Your task to perform on an android device: Clear the cart on bestbuy.com. Image 0: 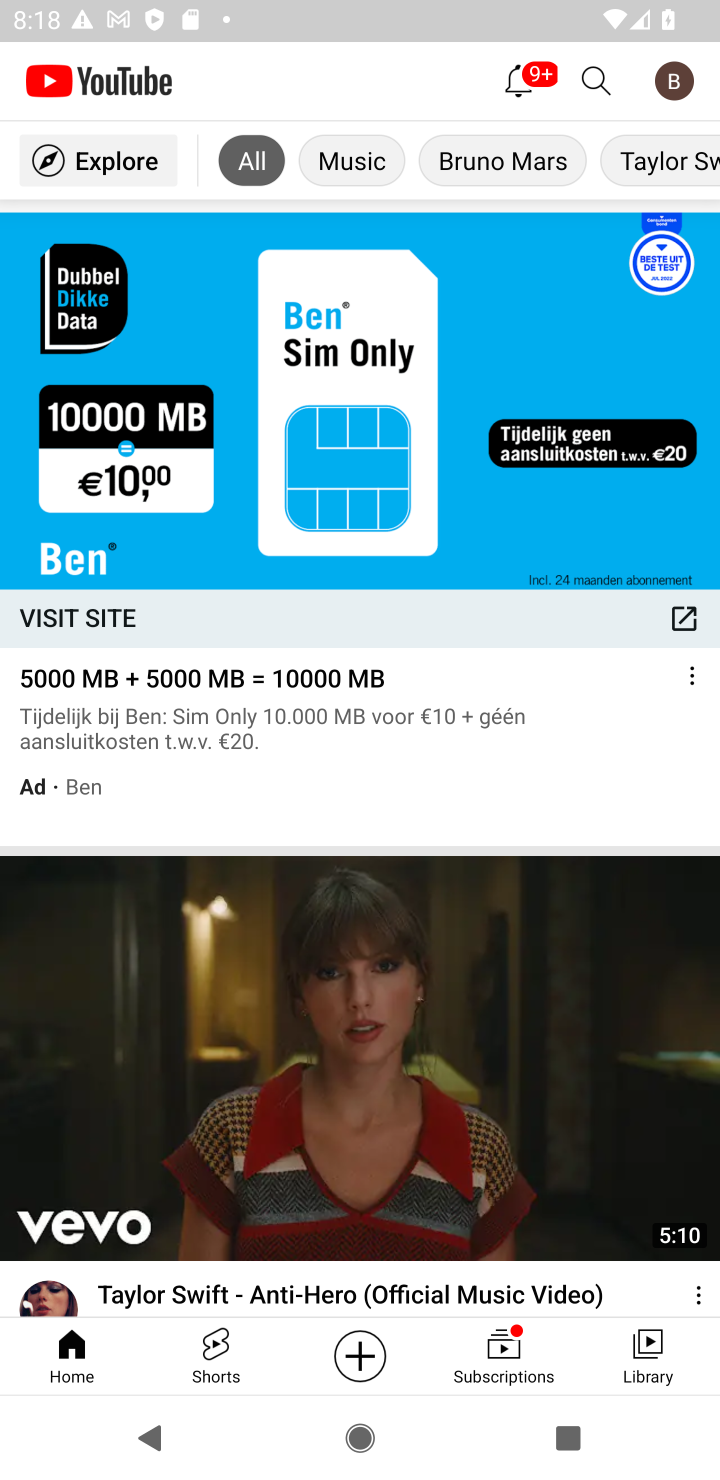
Step 0: press home button
Your task to perform on an android device: Clear the cart on bestbuy.com. Image 1: 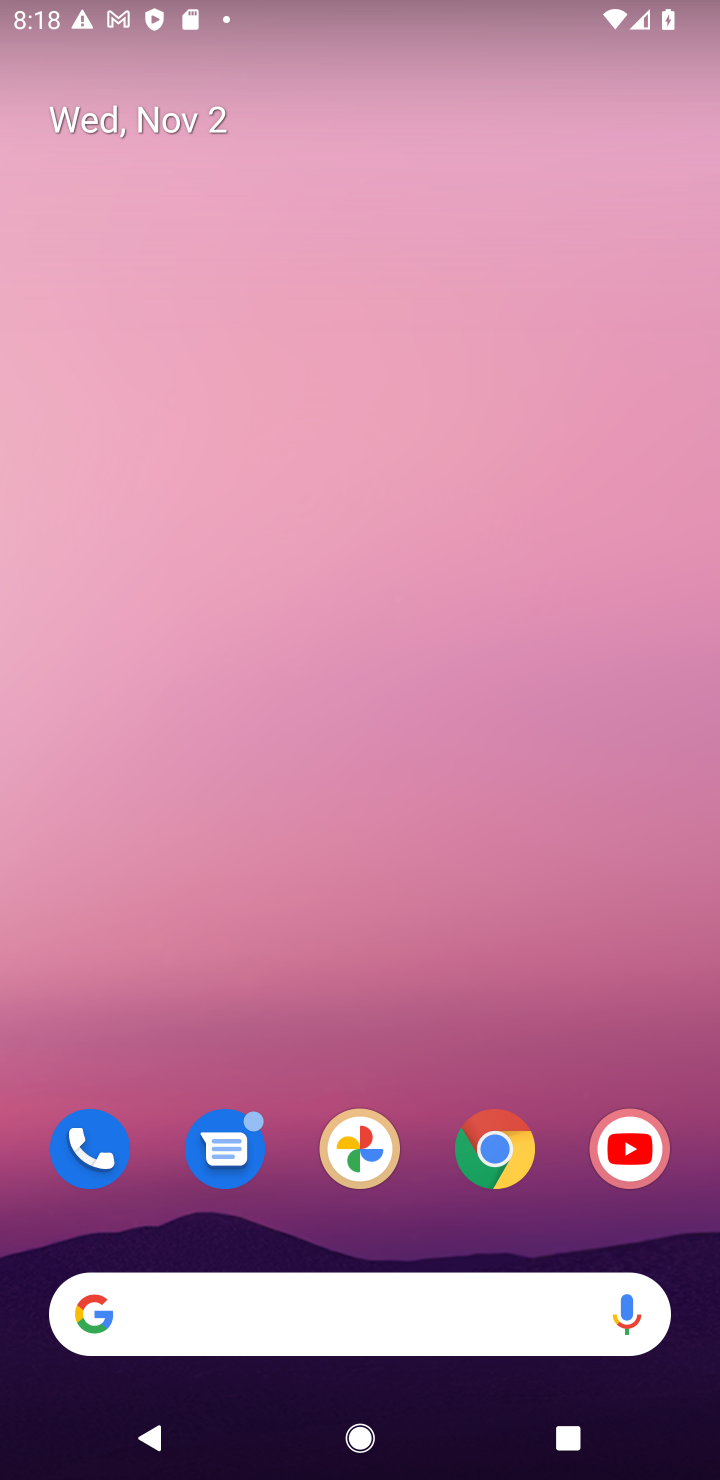
Step 1: drag from (414, 1256) to (495, 53)
Your task to perform on an android device: Clear the cart on bestbuy.com. Image 2: 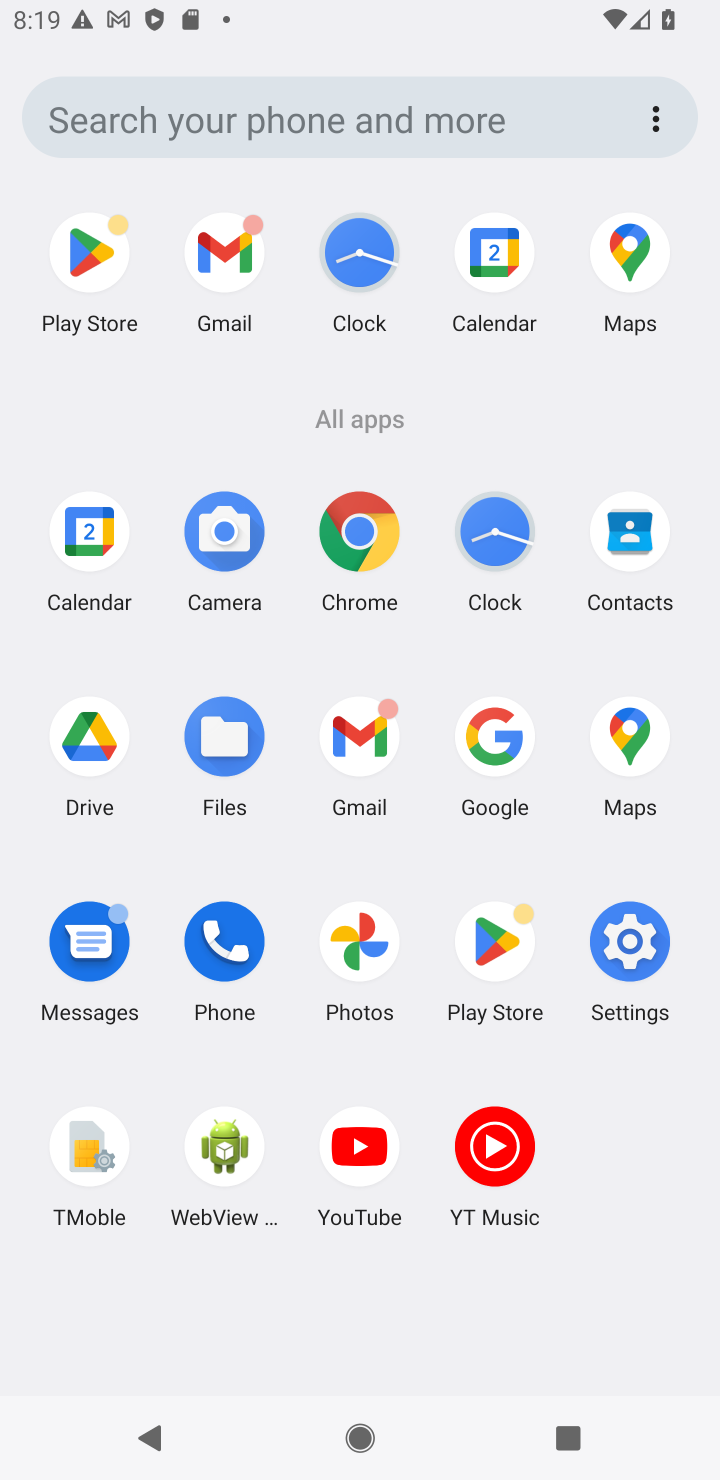
Step 2: click (486, 751)
Your task to perform on an android device: Clear the cart on bestbuy.com. Image 3: 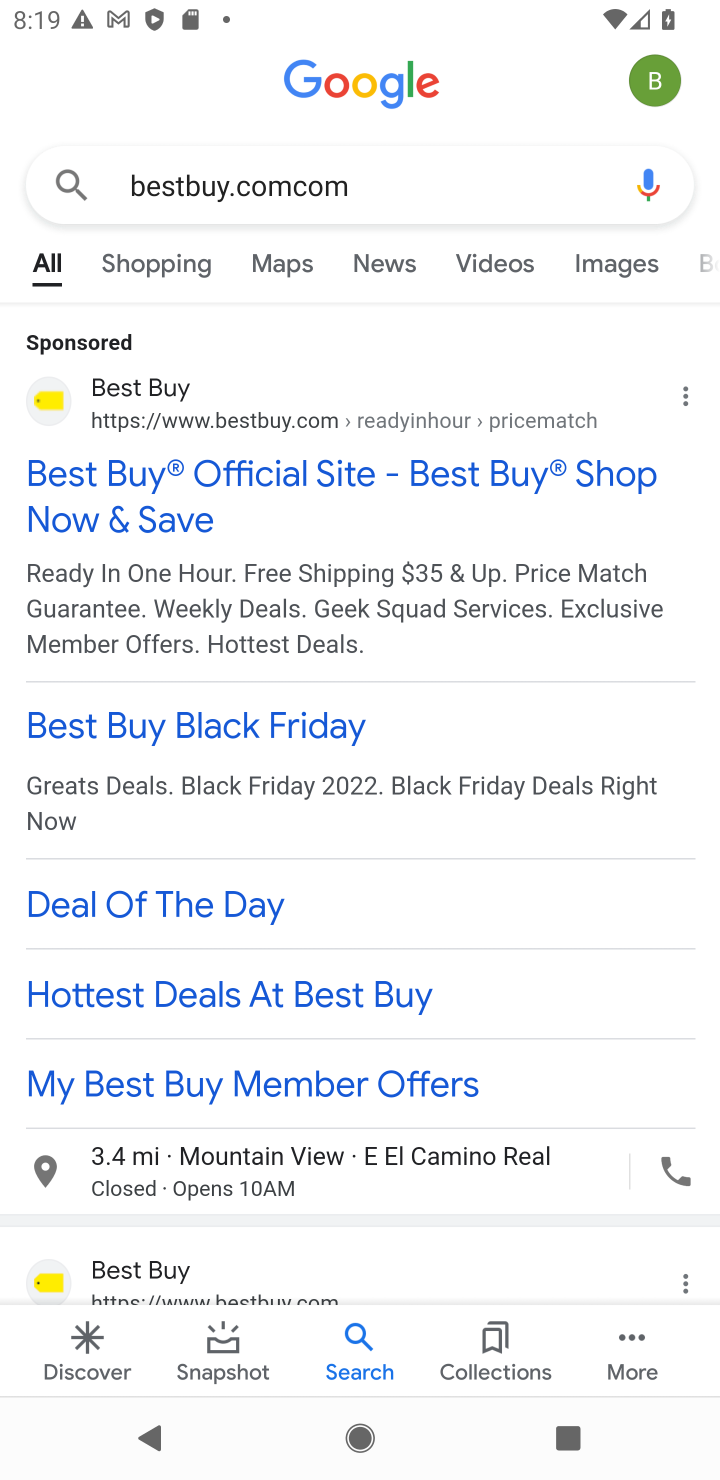
Step 3: click (391, 191)
Your task to perform on an android device: Clear the cart on bestbuy.com. Image 4: 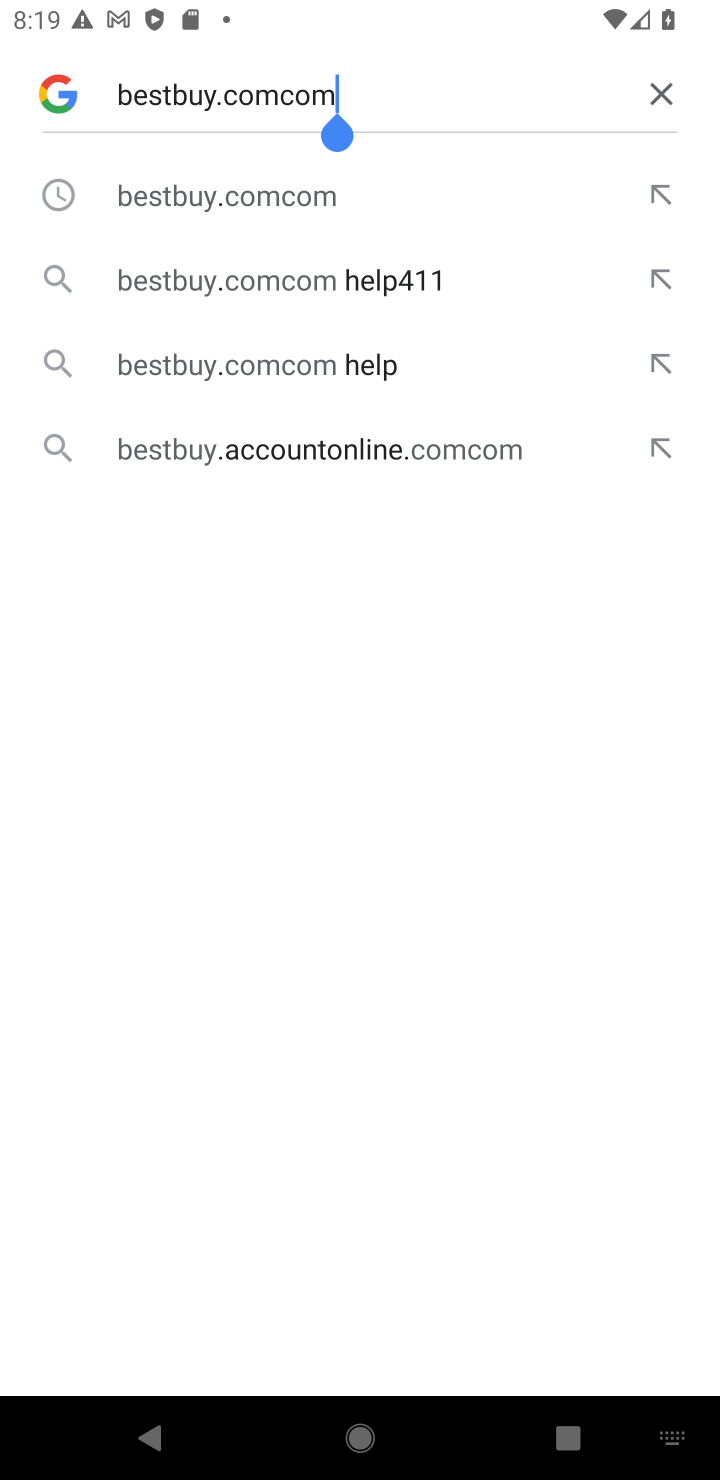
Step 4: click (656, 95)
Your task to perform on an android device: Clear the cart on bestbuy.com. Image 5: 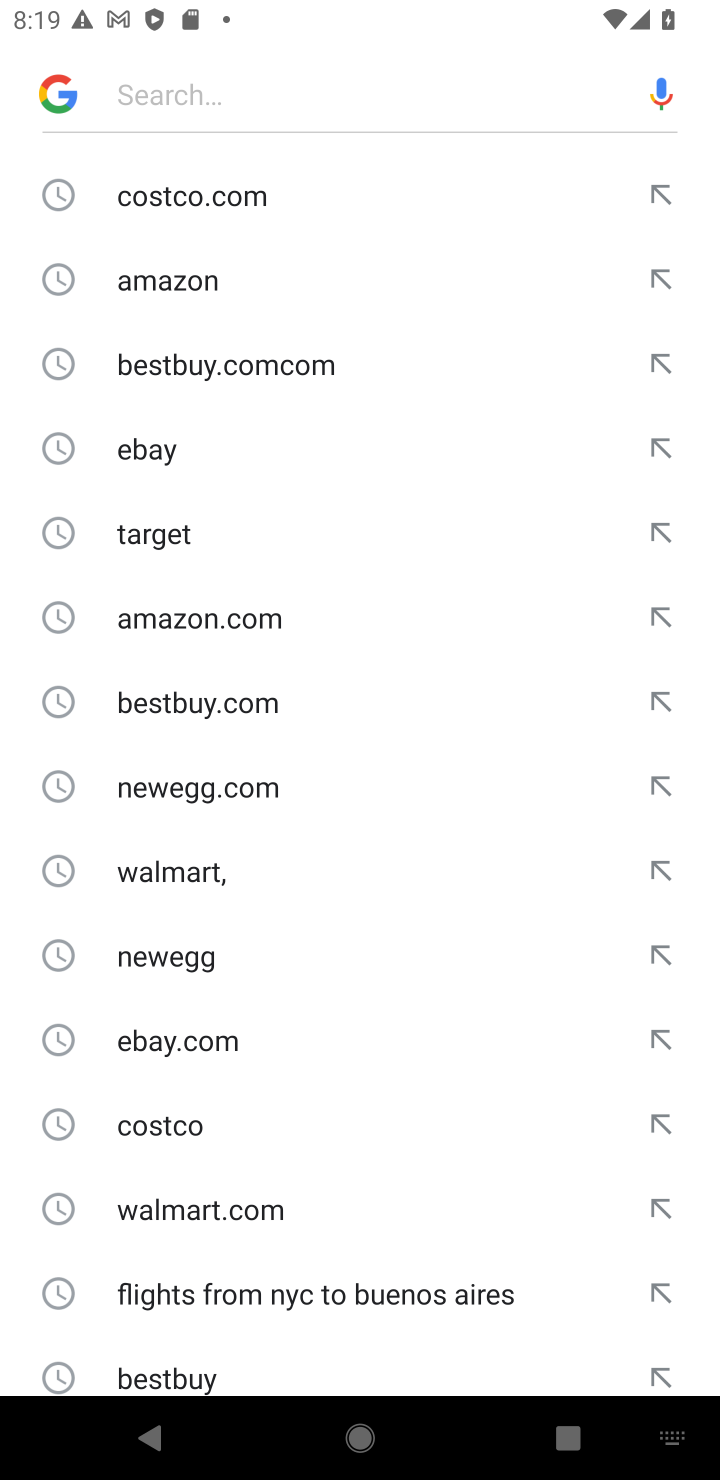
Step 5: type "bestbuy.com."
Your task to perform on an android device: Clear the cart on bestbuy.com. Image 6: 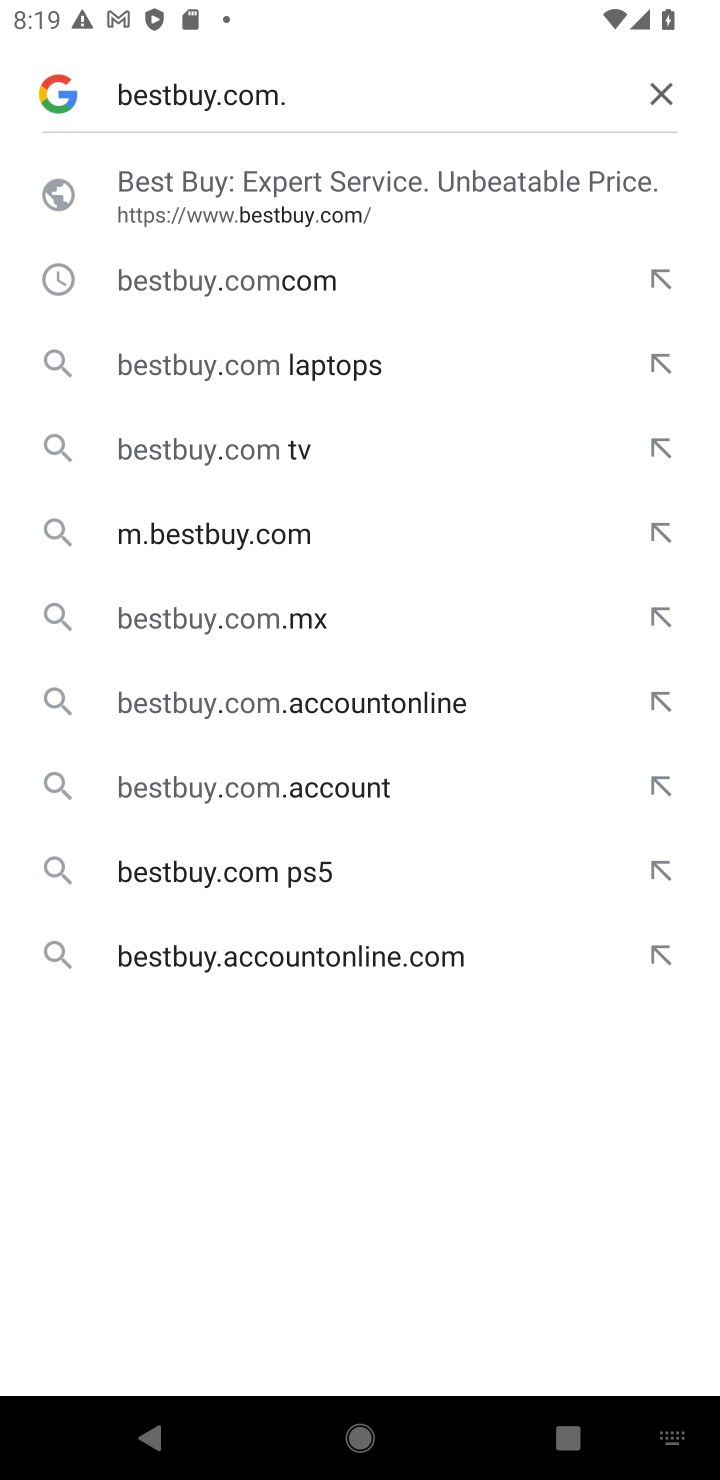
Step 6: click (286, 274)
Your task to perform on an android device: Clear the cart on bestbuy.com. Image 7: 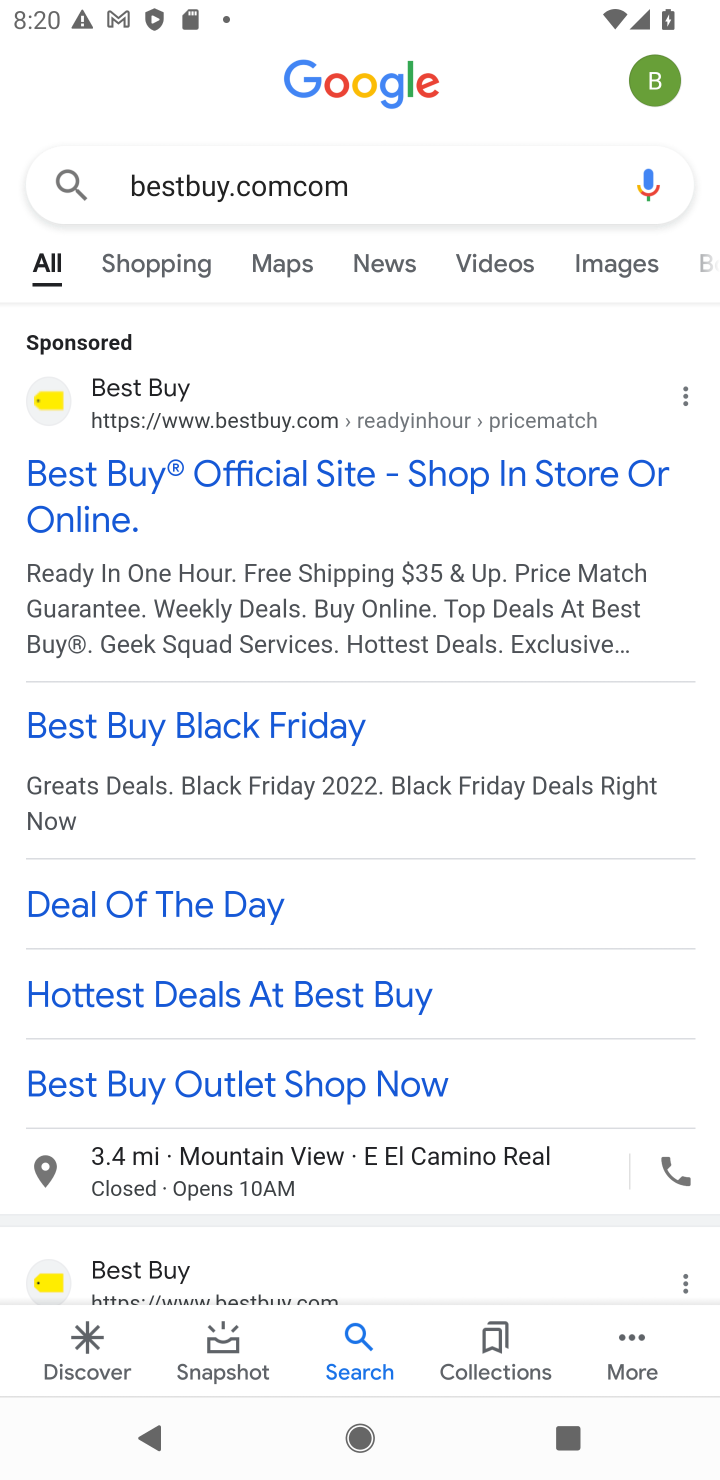
Step 7: click (374, 478)
Your task to perform on an android device: Clear the cart on bestbuy.com. Image 8: 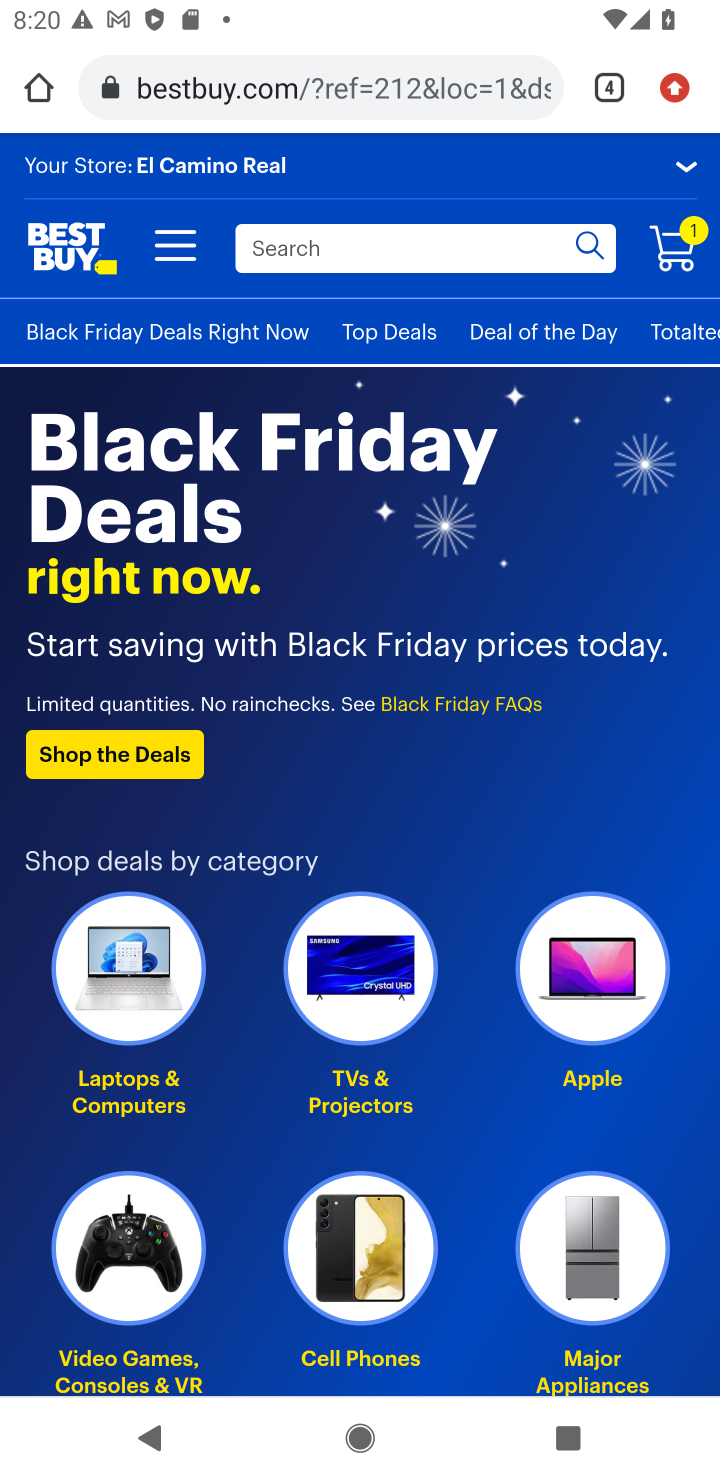
Step 8: click (683, 241)
Your task to perform on an android device: Clear the cart on bestbuy.com. Image 9: 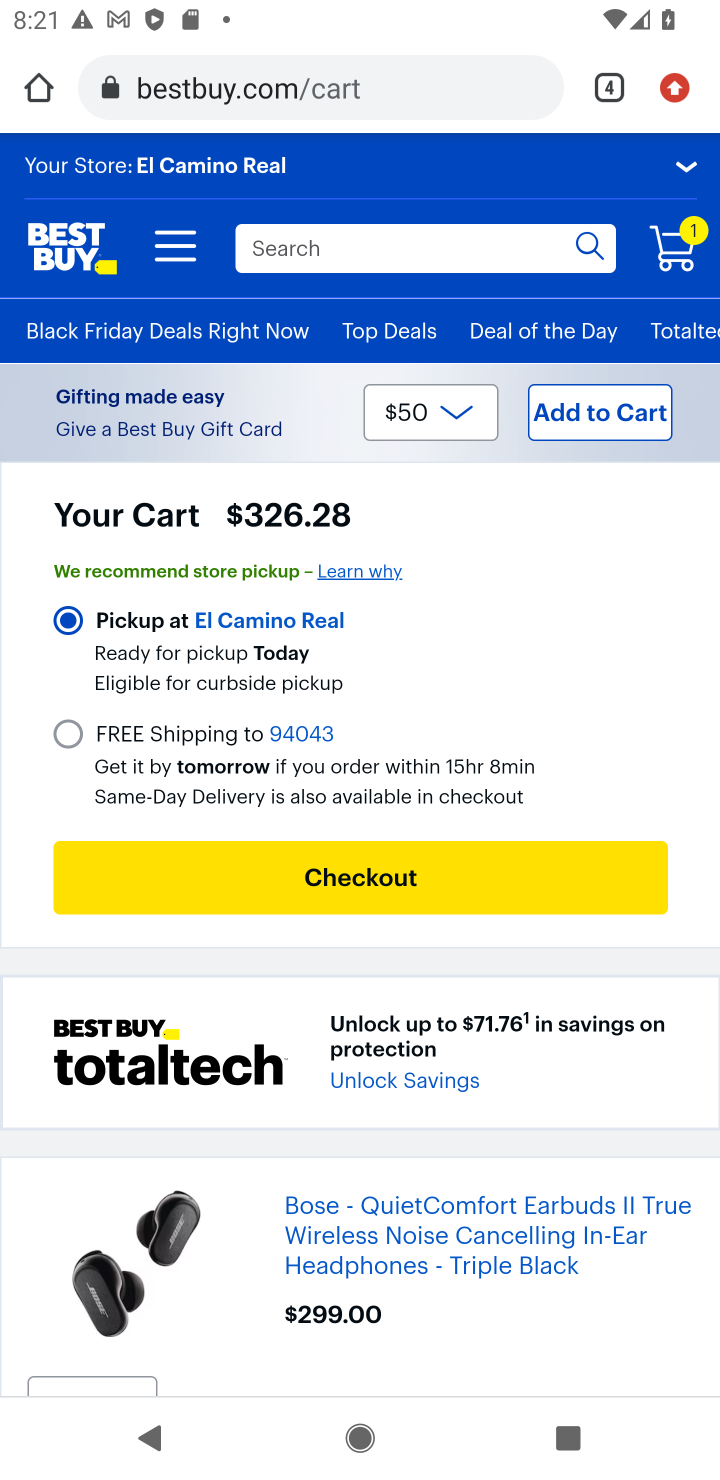
Step 9: task complete